Your task to perform on an android device: delete a single message in the gmail app Image 0: 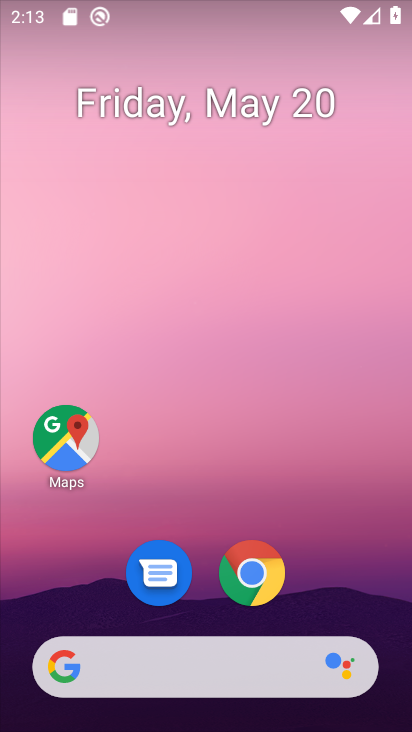
Step 0: drag from (189, 611) to (203, 205)
Your task to perform on an android device: delete a single message in the gmail app Image 1: 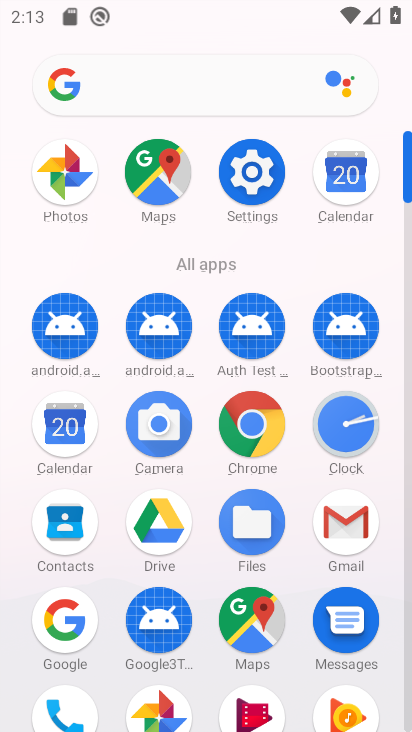
Step 1: click (319, 536)
Your task to perform on an android device: delete a single message in the gmail app Image 2: 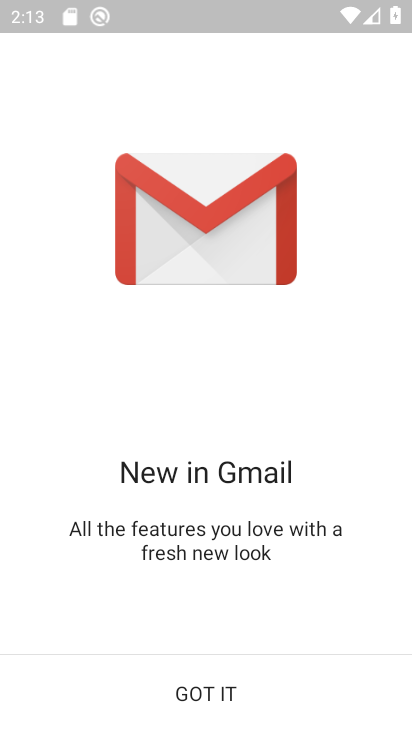
Step 2: click (251, 685)
Your task to perform on an android device: delete a single message in the gmail app Image 3: 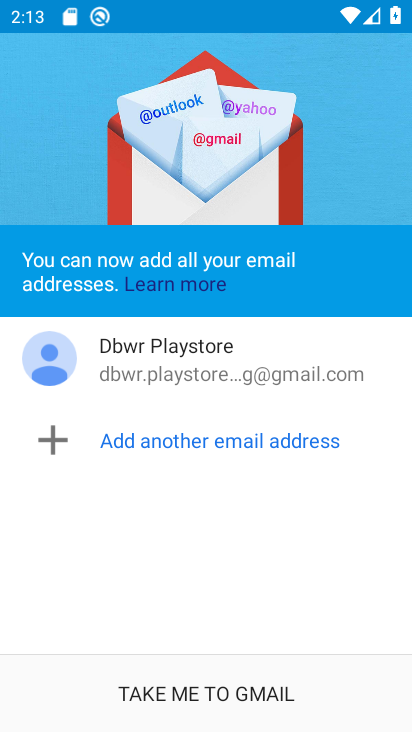
Step 3: click (251, 685)
Your task to perform on an android device: delete a single message in the gmail app Image 4: 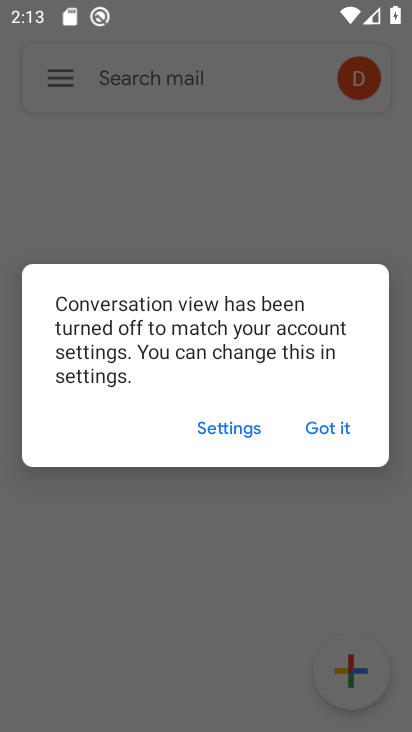
Step 4: click (326, 427)
Your task to perform on an android device: delete a single message in the gmail app Image 5: 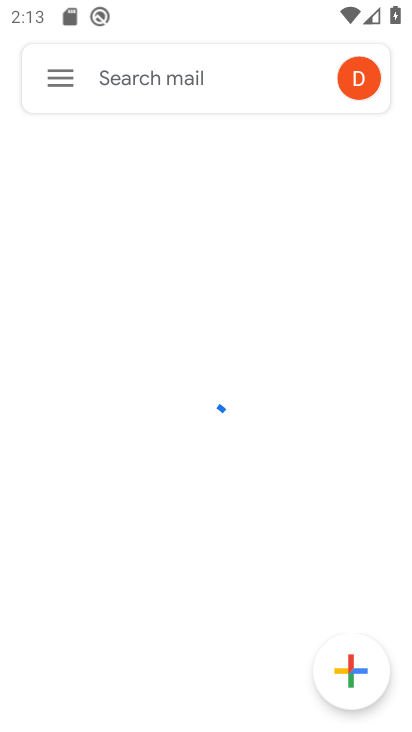
Step 5: click (72, 83)
Your task to perform on an android device: delete a single message in the gmail app Image 6: 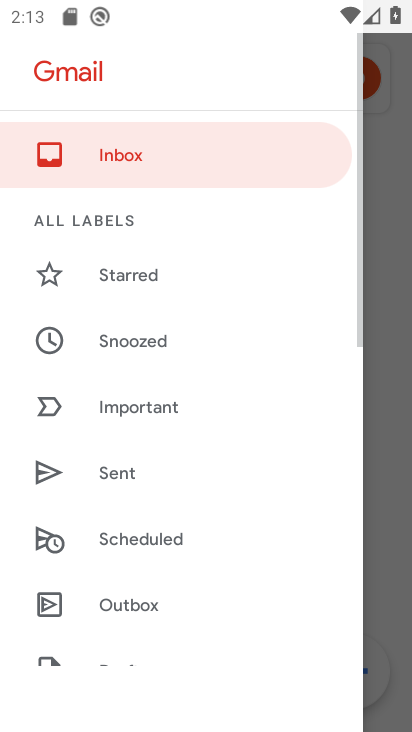
Step 6: drag from (152, 607) to (190, 344)
Your task to perform on an android device: delete a single message in the gmail app Image 7: 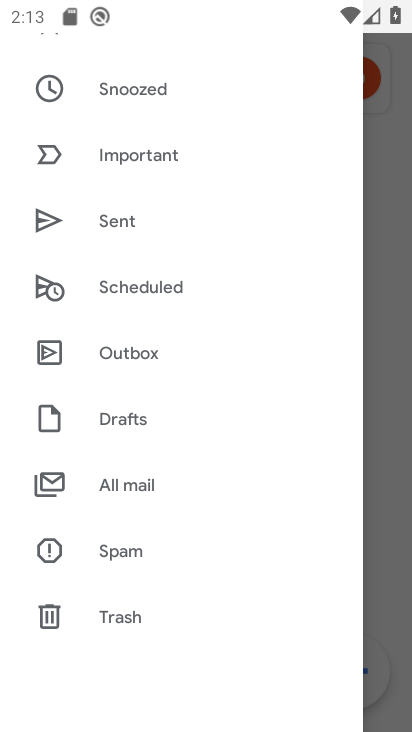
Step 7: click (167, 477)
Your task to perform on an android device: delete a single message in the gmail app Image 8: 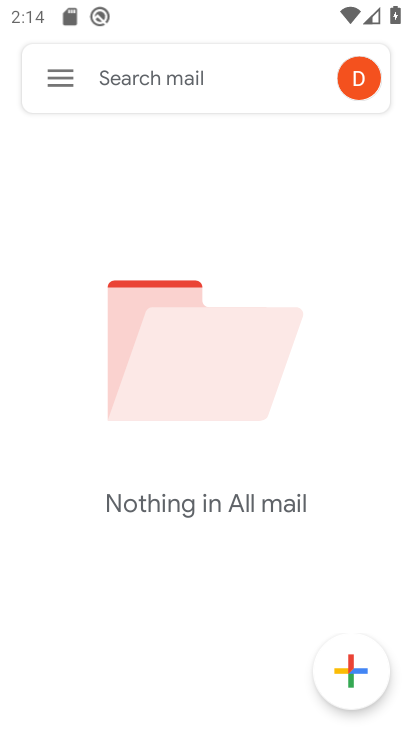
Step 8: task complete